Your task to perform on an android device: set an alarm Image 0: 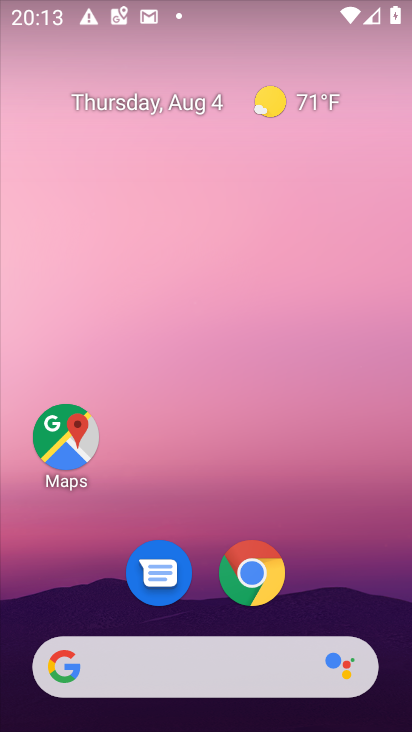
Step 0: drag from (178, 574) to (148, 73)
Your task to perform on an android device: set an alarm Image 1: 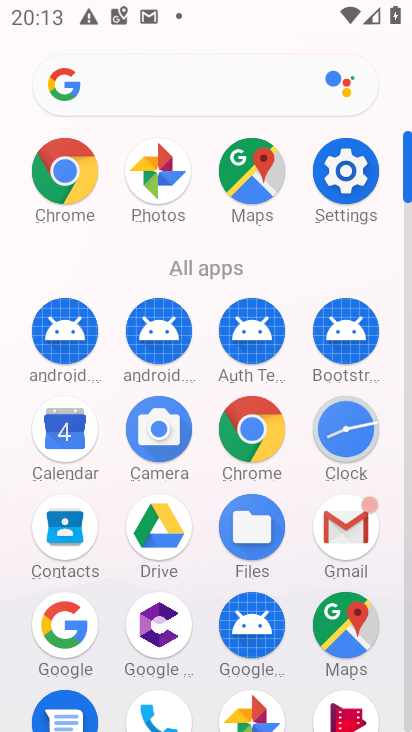
Step 1: click (355, 437)
Your task to perform on an android device: set an alarm Image 2: 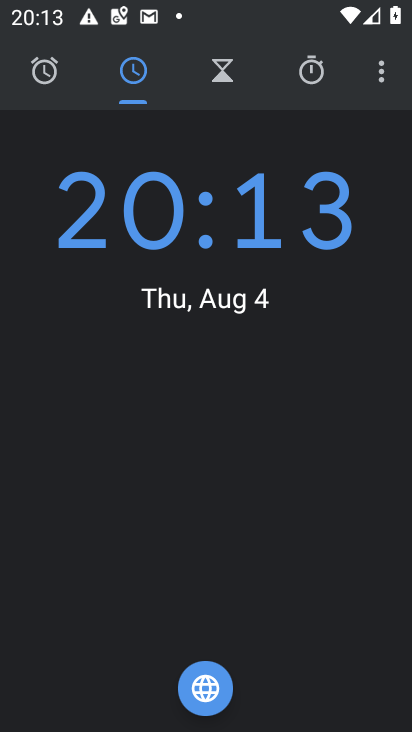
Step 2: click (46, 75)
Your task to perform on an android device: set an alarm Image 3: 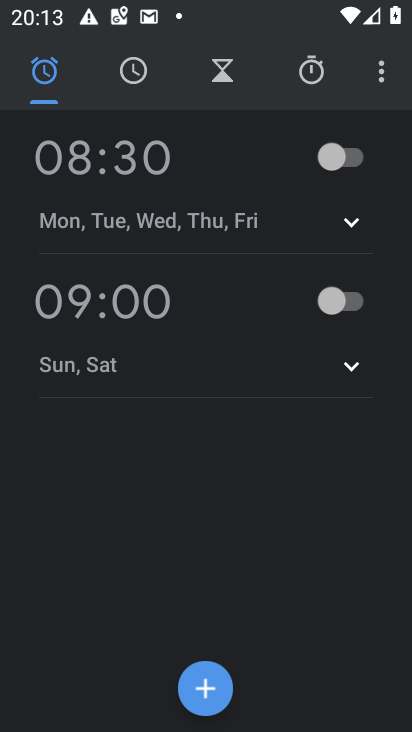
Step 3: click (194, 690)
Your task to perform on an android device: set an alarm Image 4: 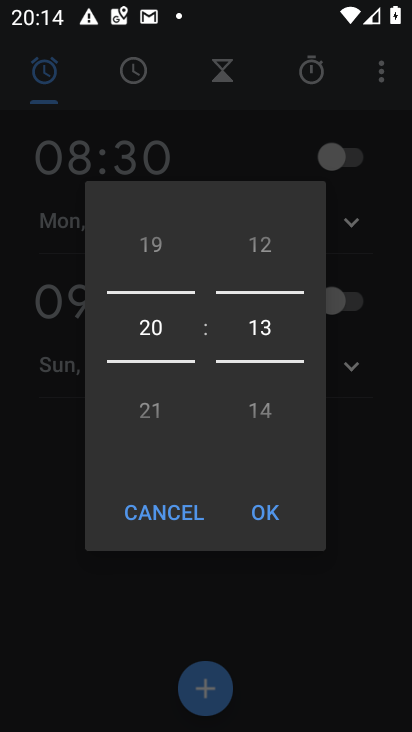
Step 4: click (272, 524)
Your task to perform on an android device: set an alarm Image 5: 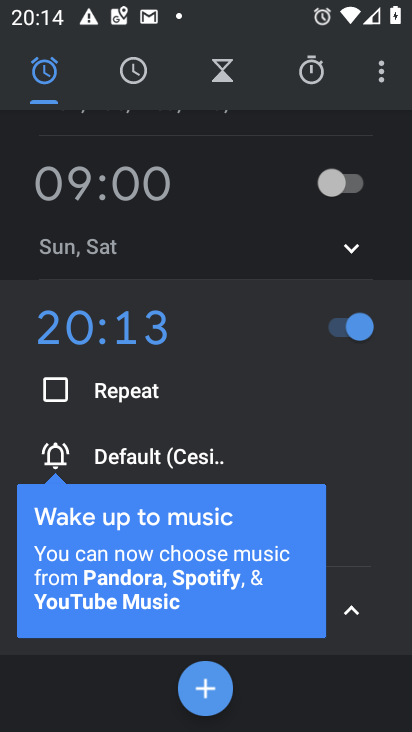
Step 5: task complete